Your task to perform on an android device: delete browsing data in the chrome app Image 0: 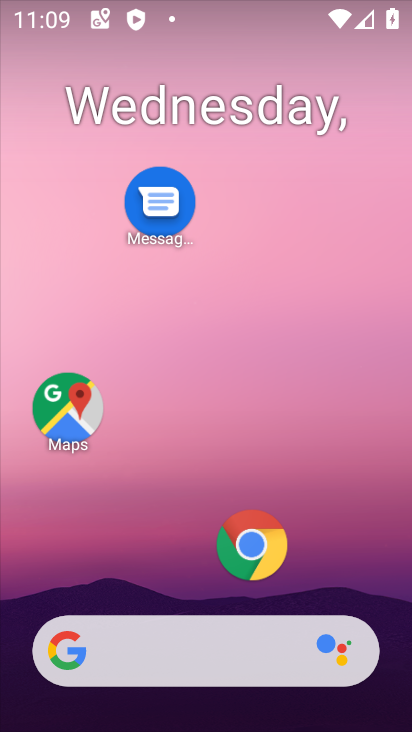
Step 0: click (251, 552)
Your task to perform on an android device: delete browsing data in the chrome app Image 1: 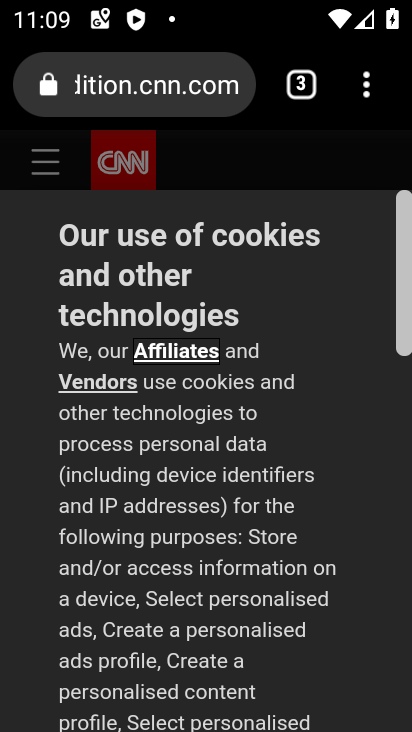
Step 1: drag from (362, 84) to (126, 457)
Your task to perform on an android device: delete browsing data in the chrome app Image 2: 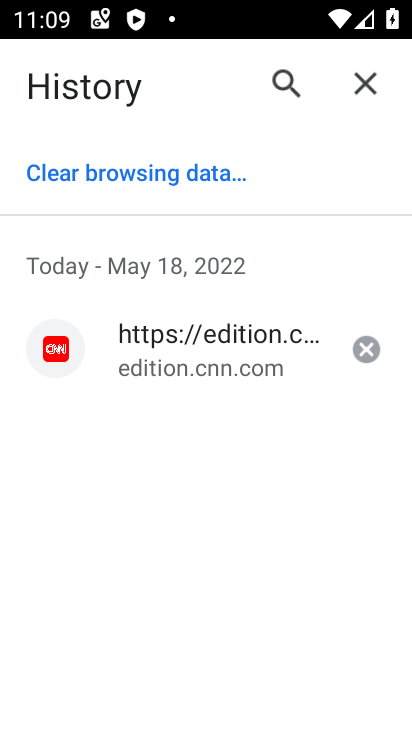
Step 2: click (109, 176)
Your task to perform on an android device: delete browsing data in the chrome app Image 3: 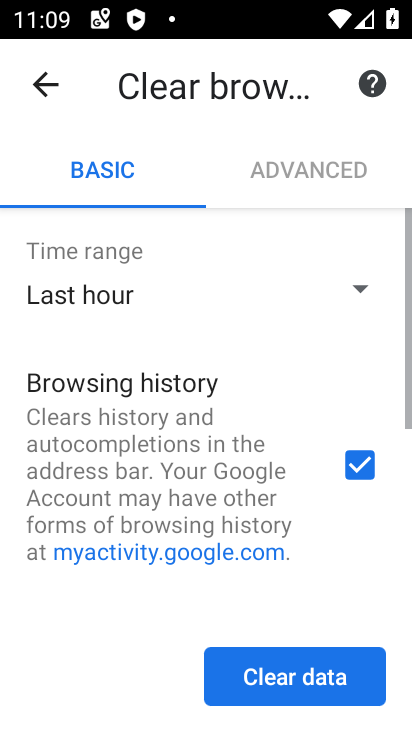
Step 3: drag from (265, 530) to (270, 333)
Your task to perform on an android device: delete browsing data in the chrome app Image 4: 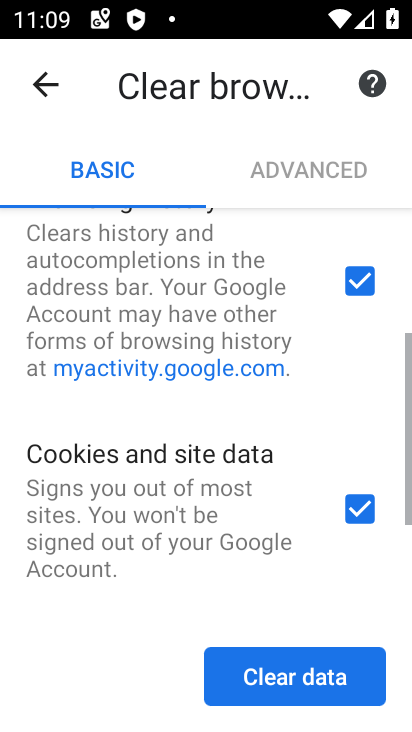
Step 4: drag from (268, 513) to (270, 335)
Your task to perform on an android device: delete browsing data in the chrome app Image 5: 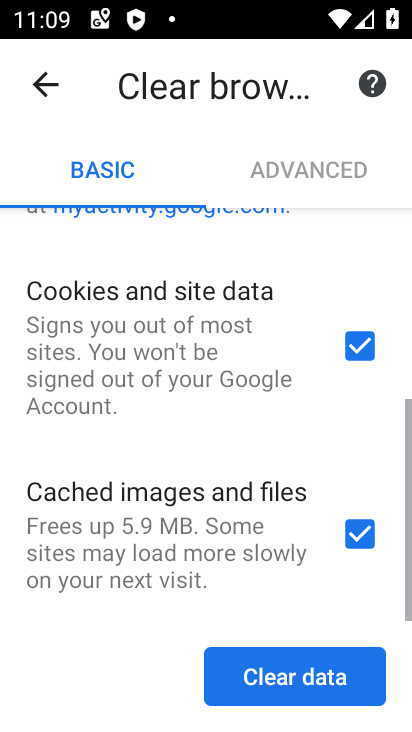
Step 5: drag from (222, 546) to (225, 344)
Your task to perform on an android device: delete browsing data in the chrome app Image 6: 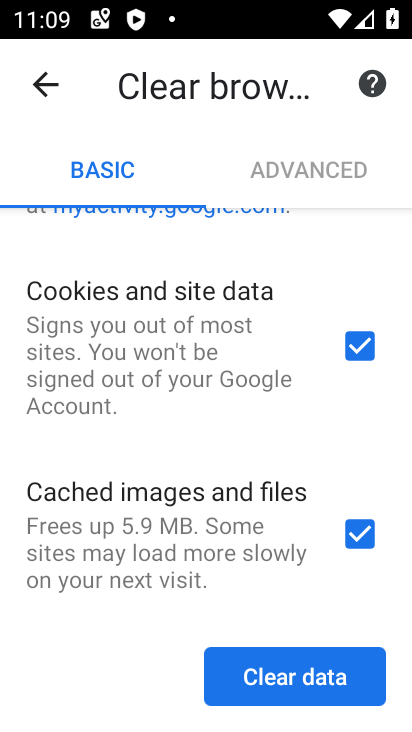
Step 6: click (244, 667)
Your task to perform on an android device: delete browsing data in the chrome app Image 7: 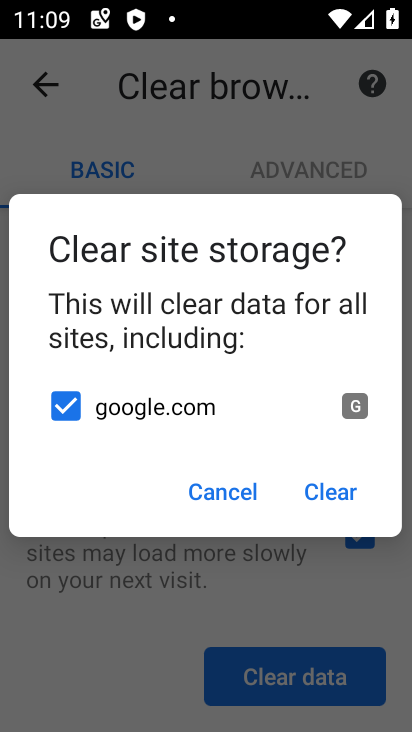
Step 7: click (348, 482)
Your task to perform on an android device: delete browsing data in the chrome app Image 8: 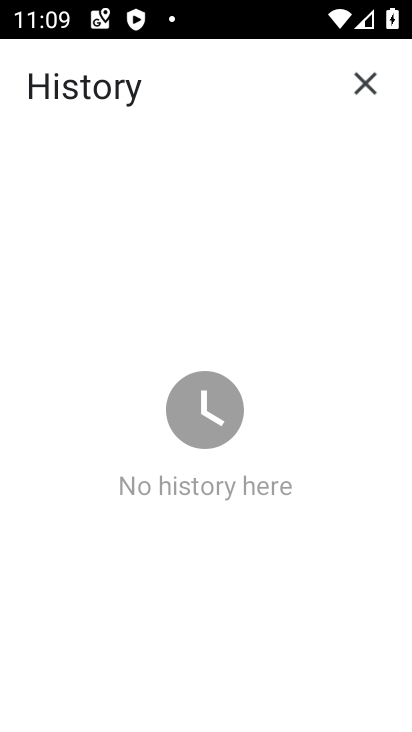
Step 8: task complete